Your task to perform on an android device: Open location settings Image 0: 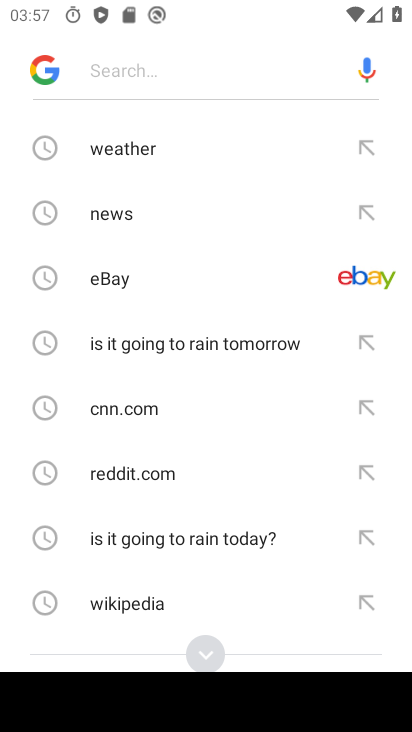
Step 0: press home button
Your task to perform on an android device: Open location settings Image 1: 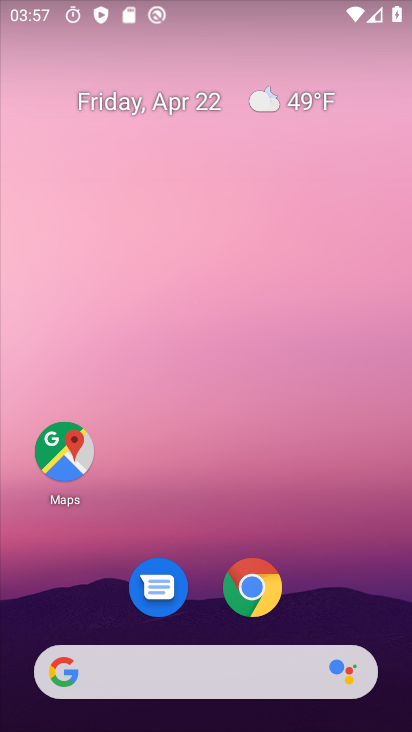
Step 1: drag from (359, 609) to (400, 40)
Your task to perform on an android device: Open location settings Image 2: 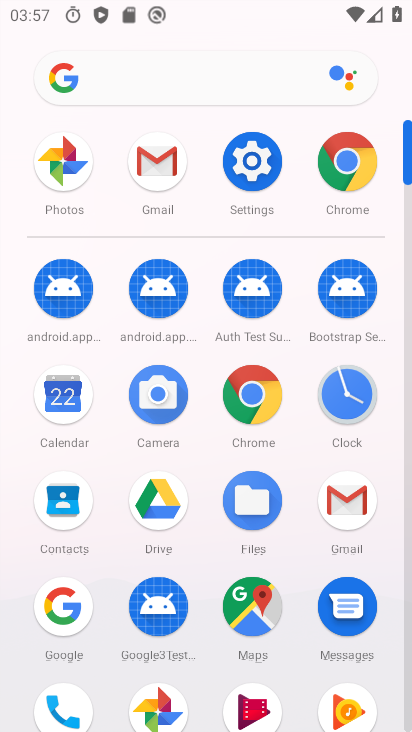
Step 2: click (256, 159)
Your task to perform on an android device: Open location settings Image 3: 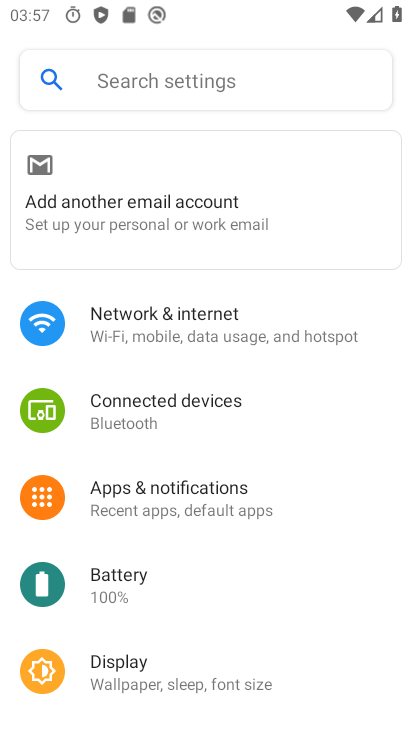
Step 3: drag from (326, 597) to (332, 182)
Your task to perform on an android device: Open location settings Image 4: 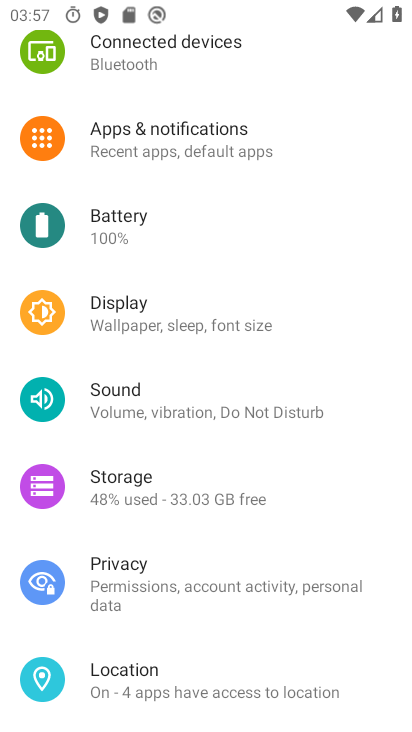
Step 4: click (112, 689)
Your task to perform on an android device: Open location settings Image 5: 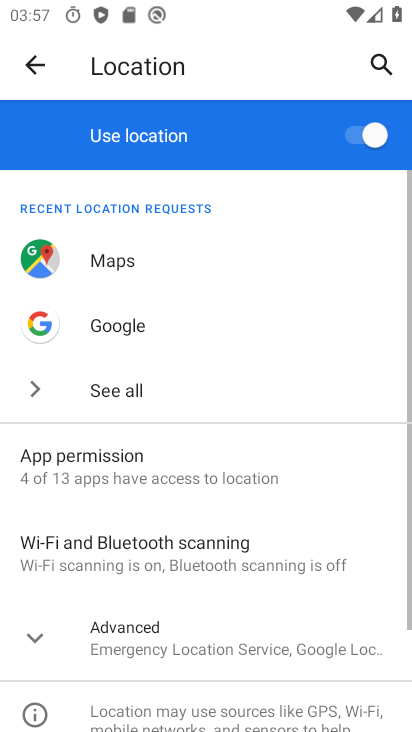
Step 5: task complete